Your task to perform on an android device: Show me productivity apps on the Play Store Image 0: 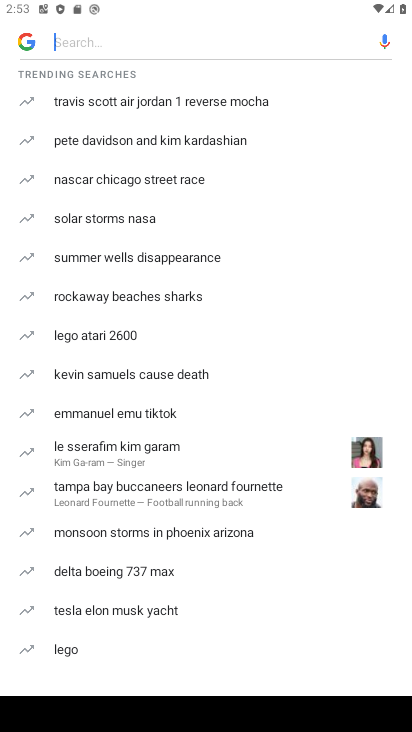
Step 0: press back button
Your task to perform on an android device: Show me productivity apps on the Play Store Image 1: 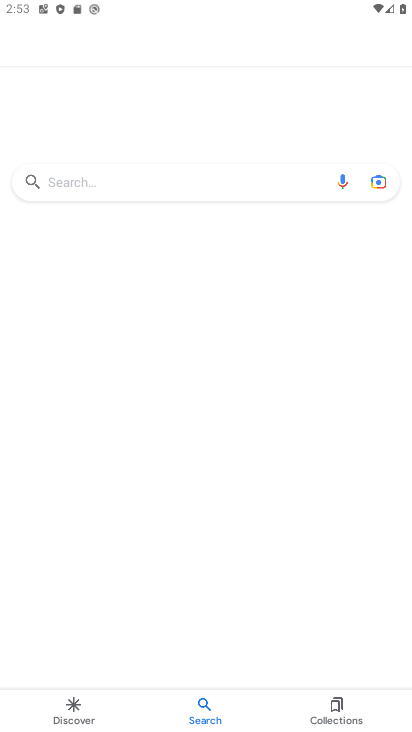
Step 1: task complete